Your task to perform on an android device: Open the phone app and click the voicemail tab. Image 0: 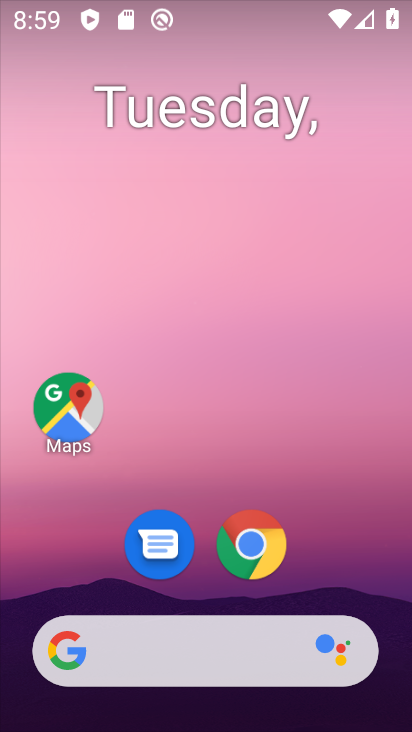
Step 0: drag from (205, 589) to (247, 7)
Your task to perform on an android device: Open the phone app and click the voicemail tab. Image 1: 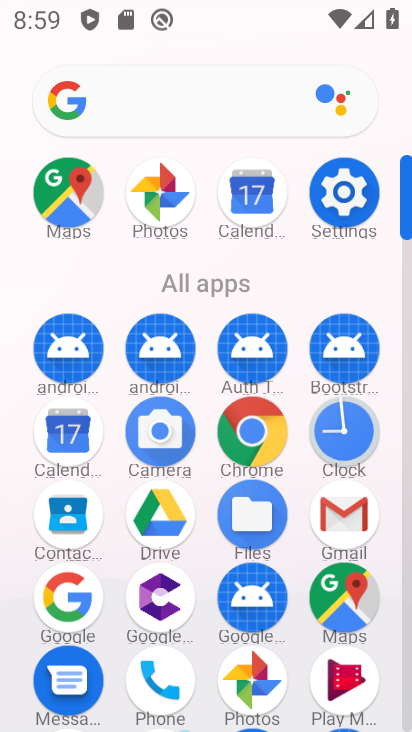
Step 1: click (154, 690)
Your task to perform on an android device: Open the phone app and click the voicemail tab. Image 2: 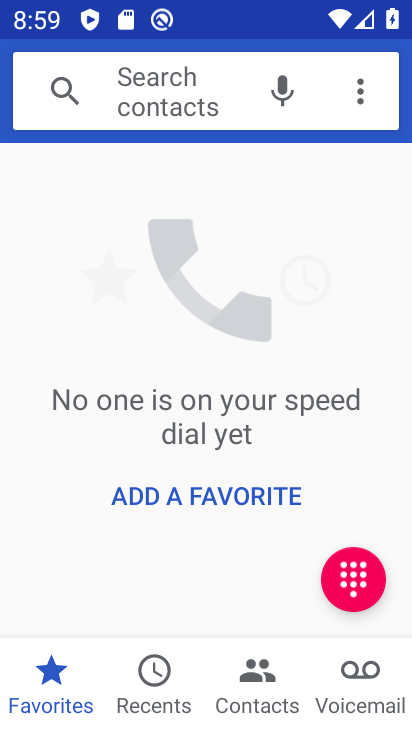
Step 2: click (370, 681)
Your task to perform on an android device: Open the phone app and click the voicemail tab. Image 3: 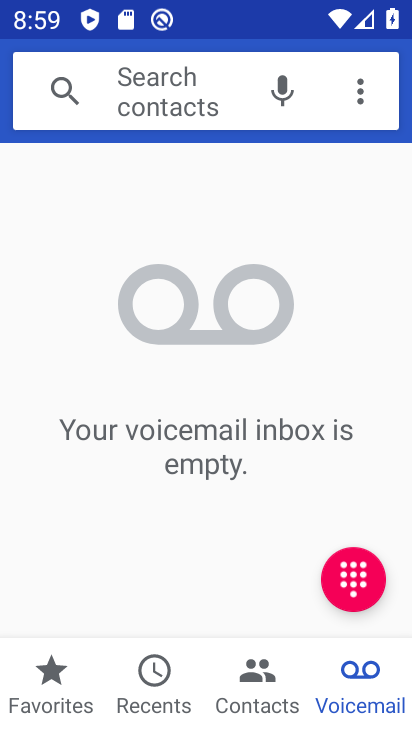
Step 3: task complete